Your task to perform on an android device: turn off smart reply in the gmail app Image 0: 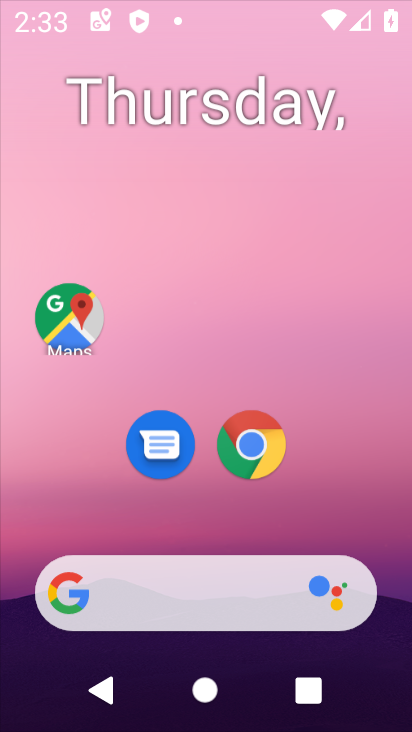
Step 0: press home button
Your task to perform on an android device: turn off smart reply in the gmail app Image 1: 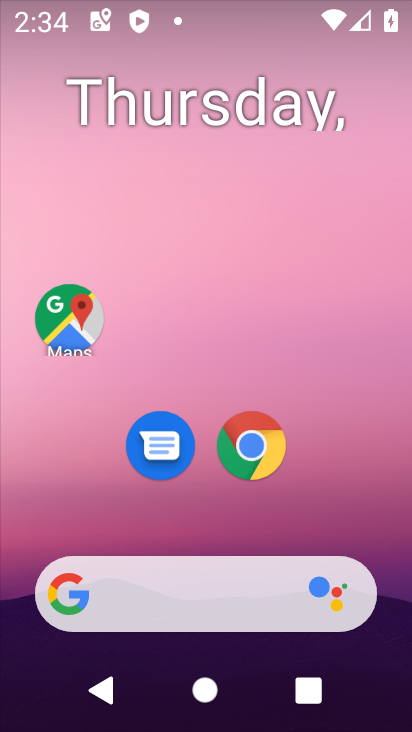
Step 1: drag from (6, 603) to (207, 184)
Your task to perform on an android device: turn off smart reply in the gmail app Image 2: 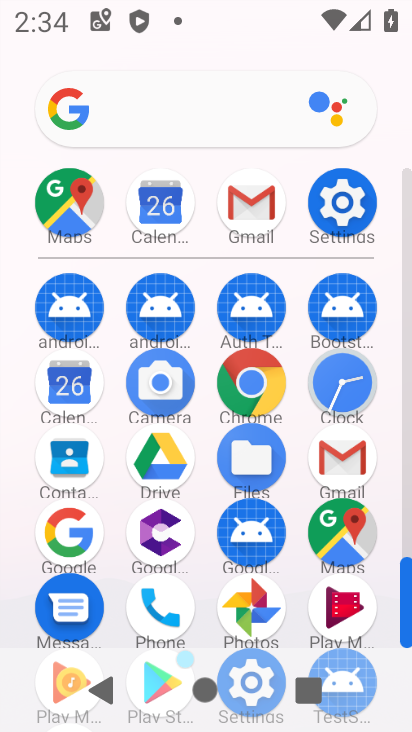
Step 2: click (253, 200)
Your task to perform on an android device: turn off smart reply in the gmail app Image 3: 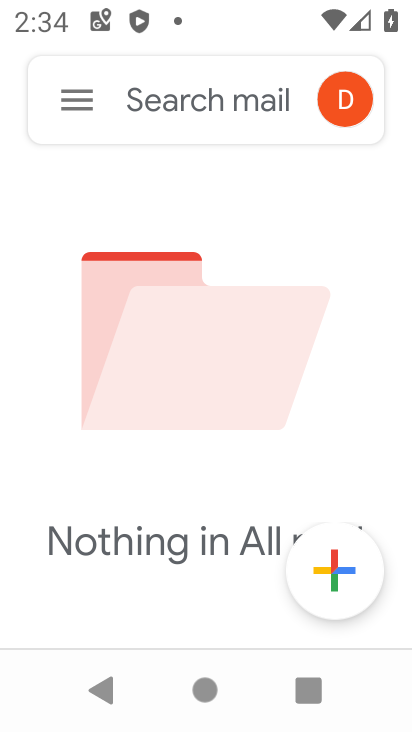
Step 3: click (85, 83)
Your task to perform on an android device: turn off smart reply in the gmail app Image 4: 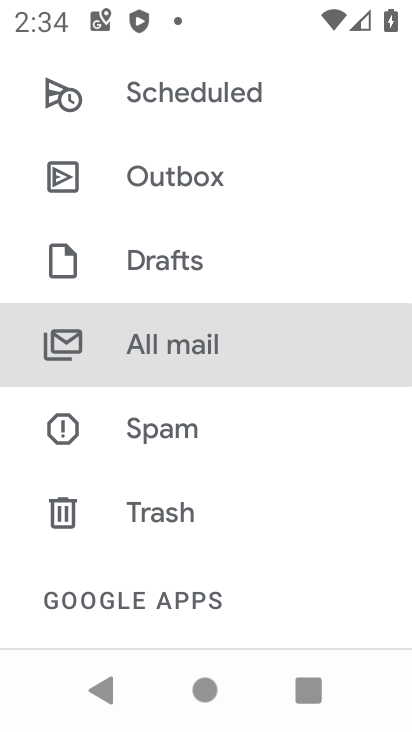
Step 4: drag from (78, 599) to (234, 191)
Your task to perform on an android device: turn off smart reply in the gmail app Image 5: 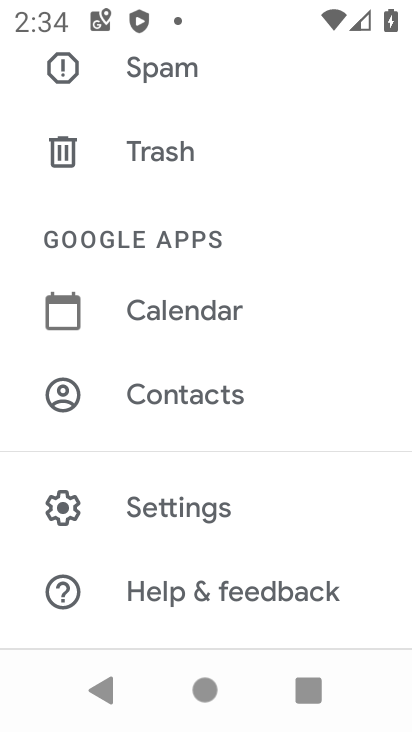
Step 5: click (180, 509)
Your task to perform on an android device: turn off smart reply in the gmail app Image 6: 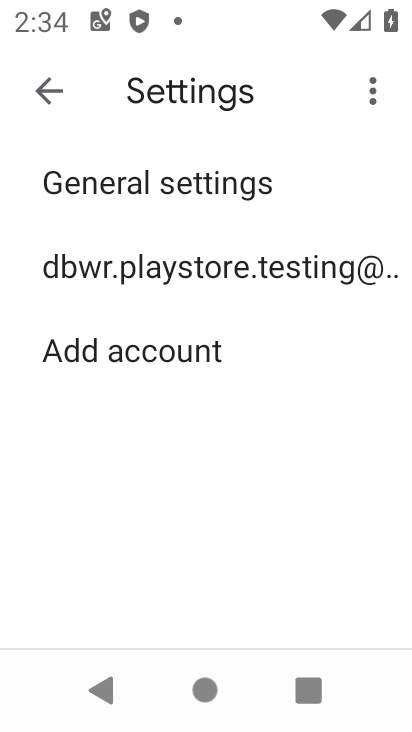
Step 6: click (153, 252)
Your task to perform on an android device: turn off smart reply in the gmail app Image 7: 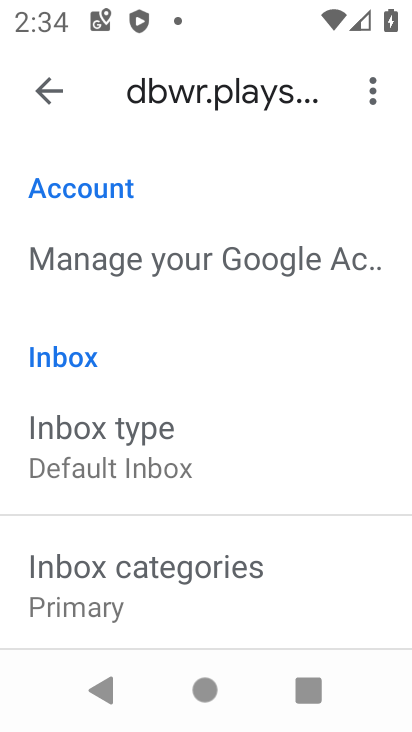
Step 7: drag from (1, 566) to (262, 142)
Your task to perform on an android device: turn off smart reply in the gmail app Image 8: 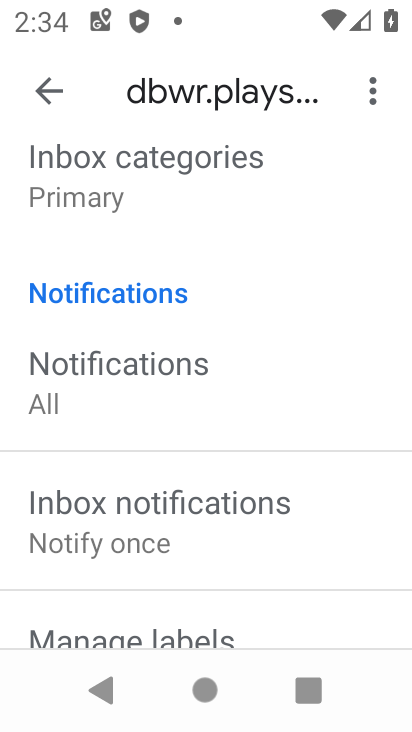
Step 8: drag from (13, 515) to (274, 144)
Your task to perform on an android device: turn off smart reply in the gmail app Image 9: 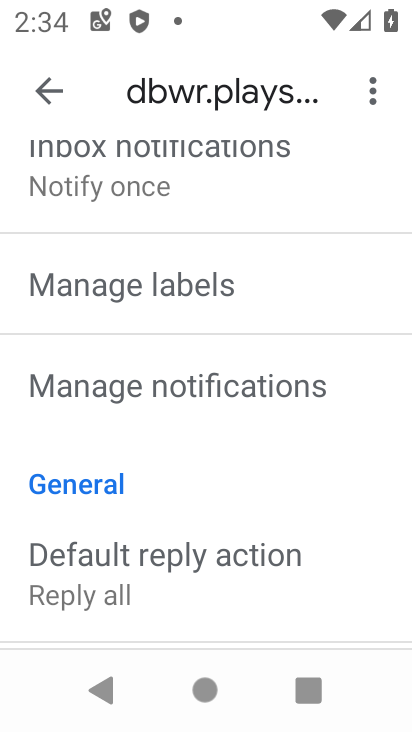
Step 9: drag from (30, 523) to (308, 228)
Your task to perform on an android device: turn off smart reply in the gmail app Image 10: 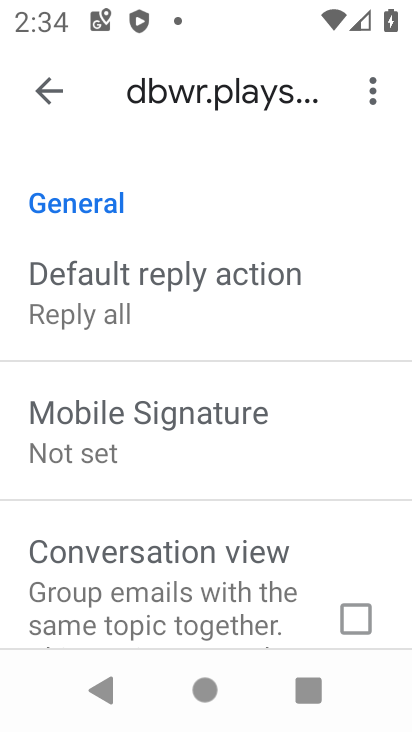
Step 10: drag from (9, 559) to (259, 179)
Your task to perform on an android device: turn off smart reply in the gmail app Image 11: 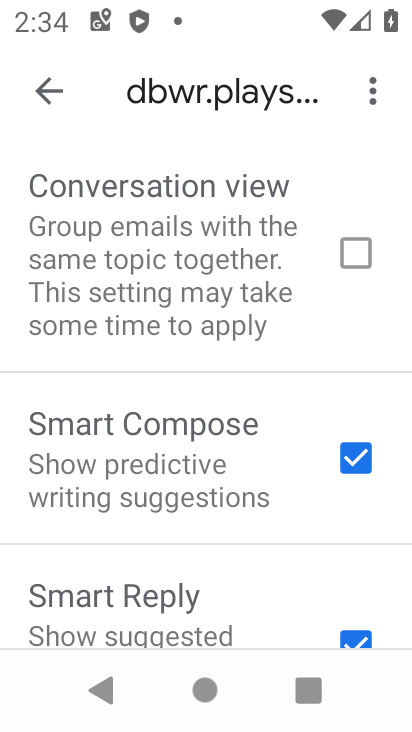
Step 11: drag from (1, 613) to (193, 261)
Your task to perform on an android device: turn off smart reply in the gmail app Image 12: 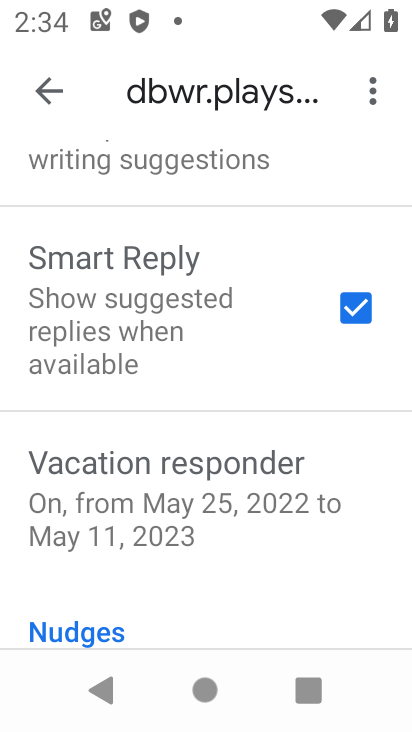
Step 12: click (349, 305)
Your task to perform on an android device: turn off smart reply in the gmail app Image 13: 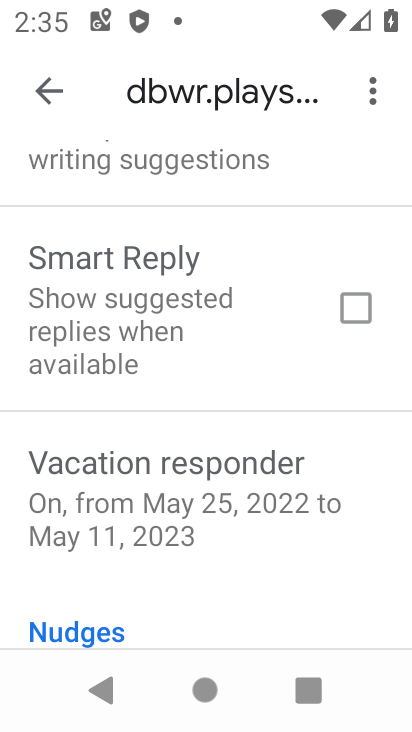
Step 13: task complete